Your task to perform on an android device: Is it going to rain this weekend? Image 0: 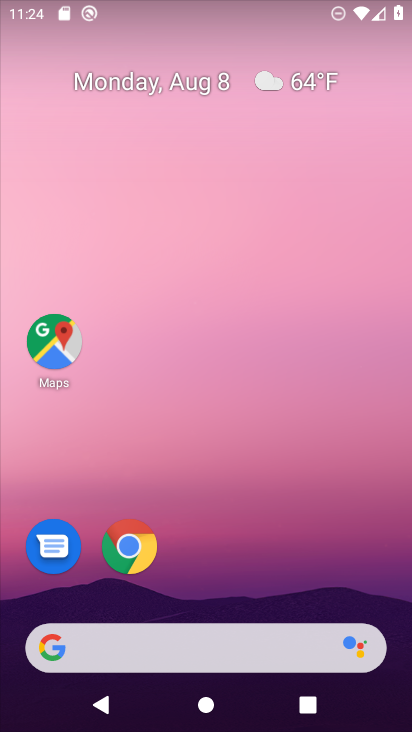
Step 0: press home button
Your task to perform on an android device: Is it going to rain this weekend? Image 1: 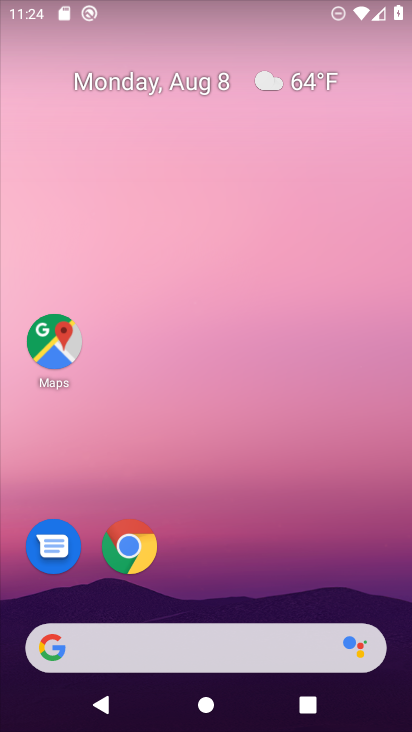
Step 1: drag from (221, 598) to (212, 22)
Your task to perform on an android device: Is it going to rain this weekend? Image 2: 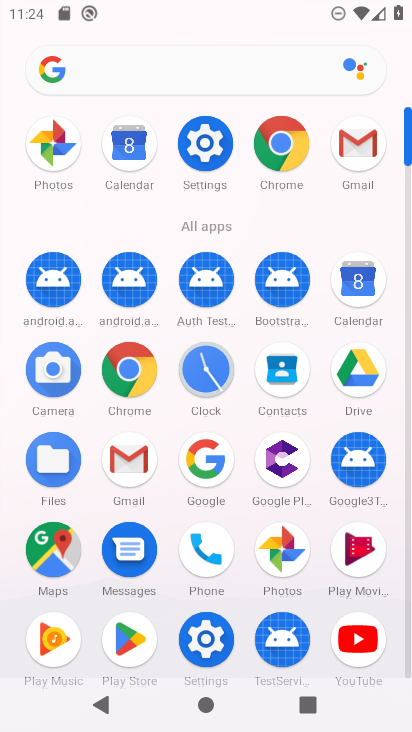
Step 2: press home button
Your task to perform on an android device: Is it going to rain this weekend? Image 3: 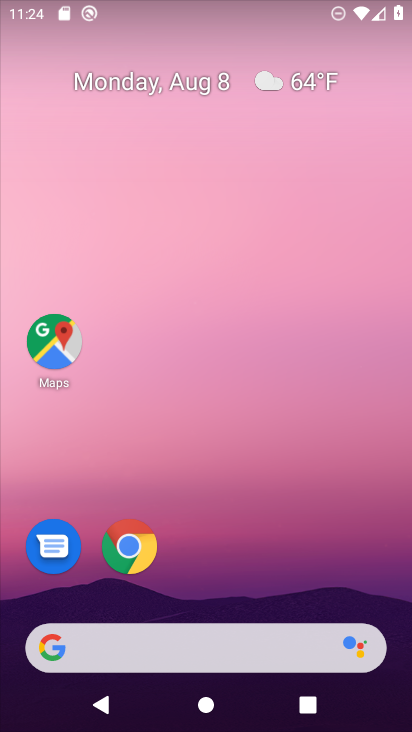
Step 3: click (305, 77)
Your task to perform on an android device: Is it going to rain this weekend? Image 4: 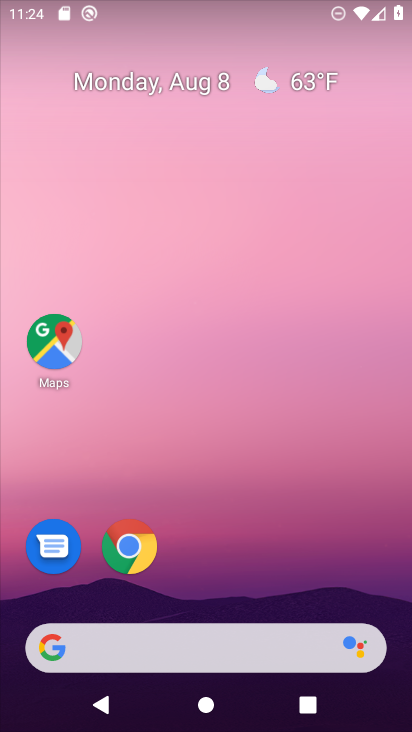
Step 4: click (258, 79)
Your task to perform on an android device: Is it going to rain this weekend? Image 5: 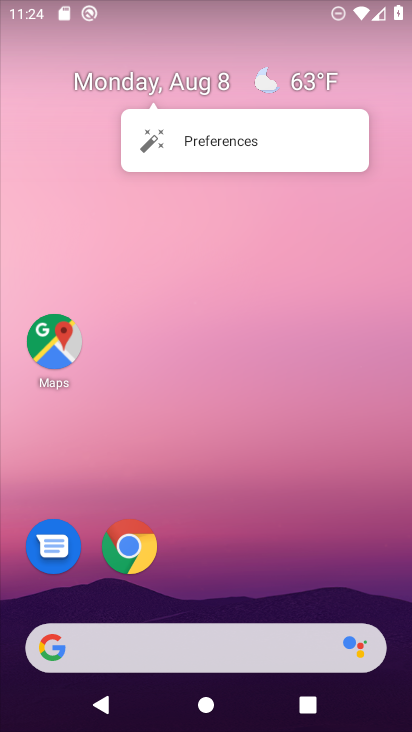
Step 5: click (269, 77)
Your task to perform on an android device: Is it going to rain this weekend? Image 6: 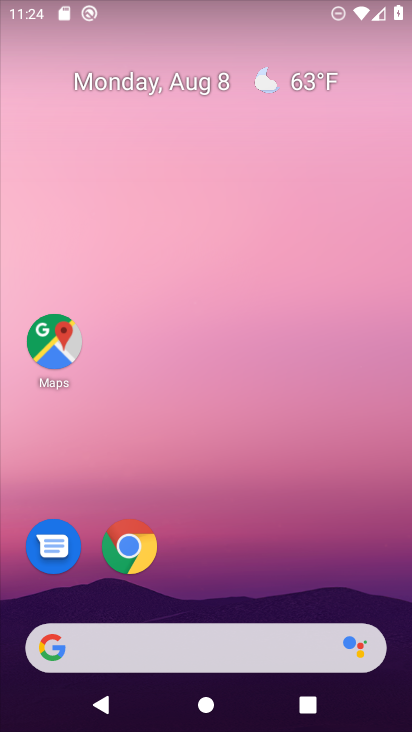
Step 6: click (294, 78)
Your task to perform on an android device: Is it going to rain this weekend? Image 7: 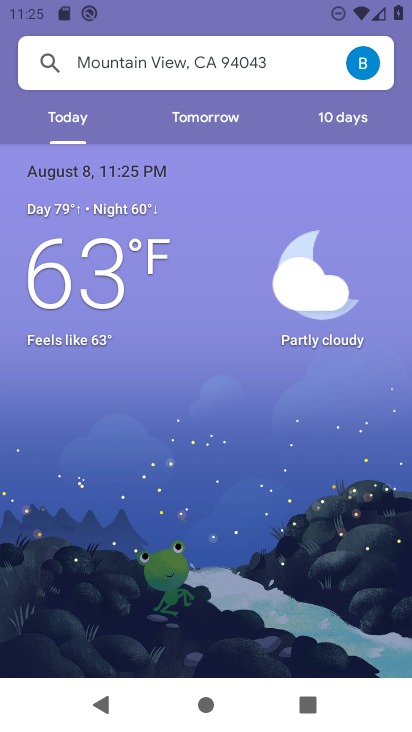
Step 7: click (337, 118)
Your task to perform on an android device: Is it going to rain this weekend? Image 8: 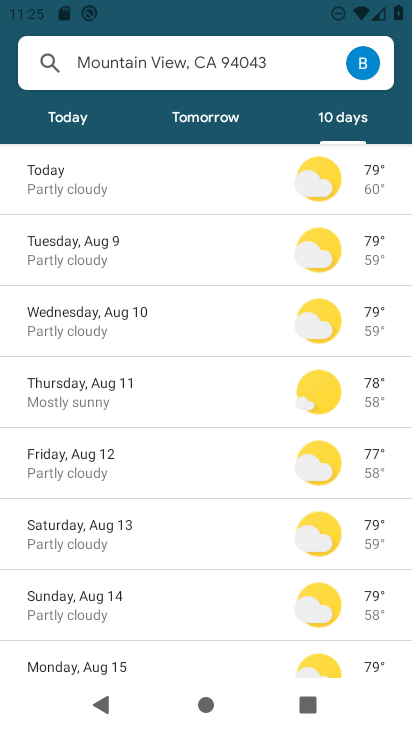
Step 8: click (142, 534)
Your task to perform on an android device: Is it going to rain this weekend? Image 9: 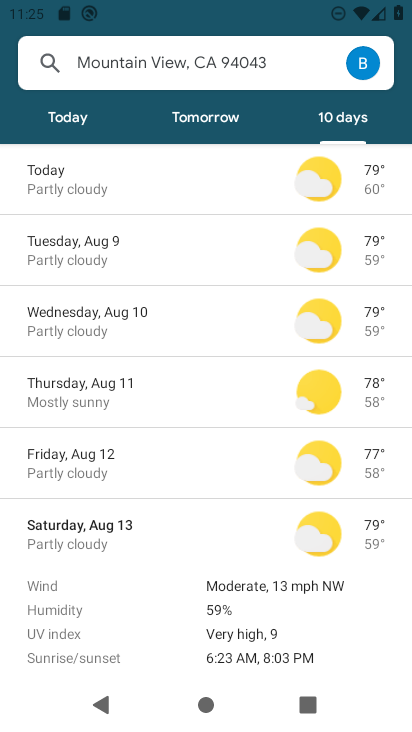
Step 9: drag from (139, 526) to (136, 160)
Your task to perform on an android device: Is it going to rain this weekend? Image 10: 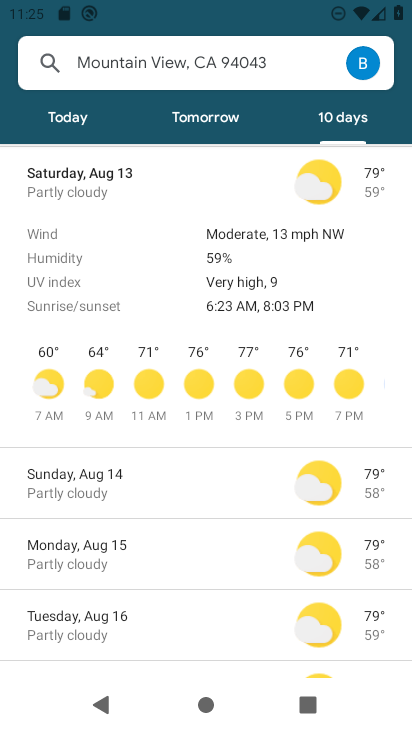
Step 10: click (133, 481)
Your task to perform on an android device: Is it going to rain this weekend? Image 11: 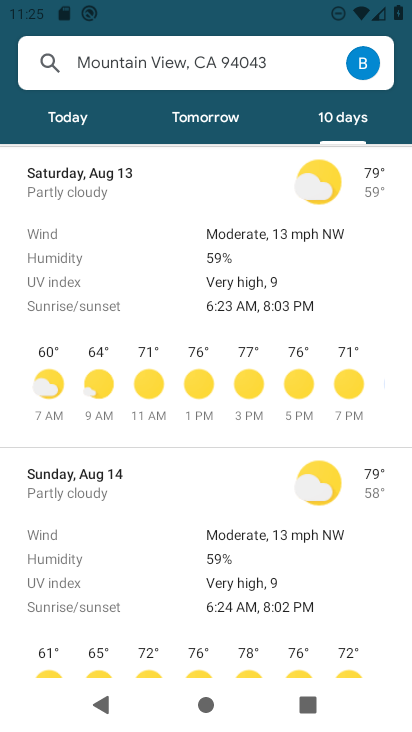
Step 11: task complete